Your task to perform on an android device: toggle show notifications on the lock screen Image 0: 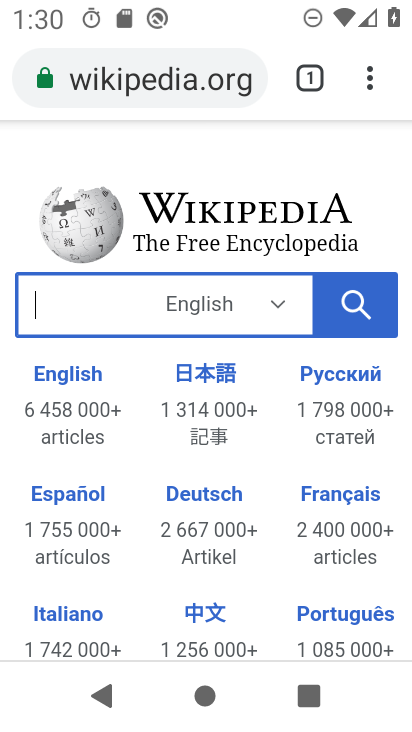
Step 0: press home button
Your task to perform on an android device: toggle show notifications on the lock screen Image 1: 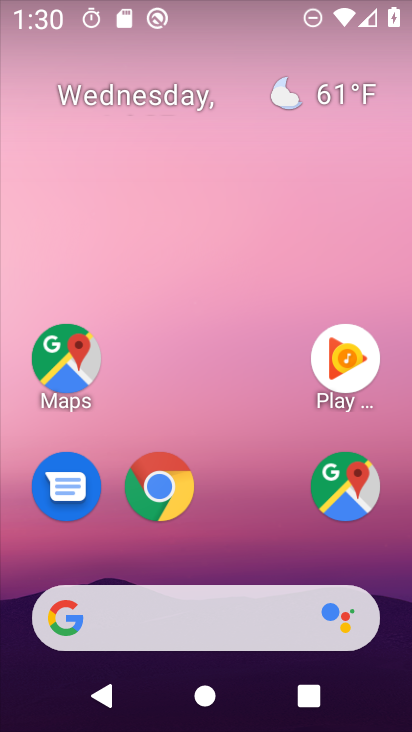
Step 1: drag from (282, 520) to (289, 126)
Your task to perform on an android device: toggle show notifications on the lock screen Image 2: 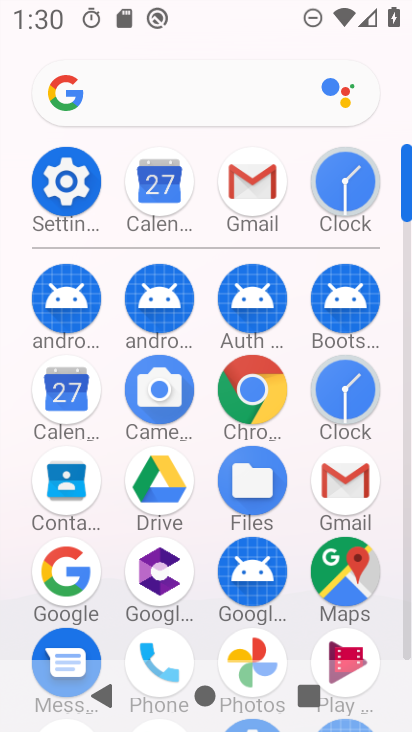
Step 2: click (71, 186)
Your task to perform on an android device: toggle show notifications on the lock screen Image 3: 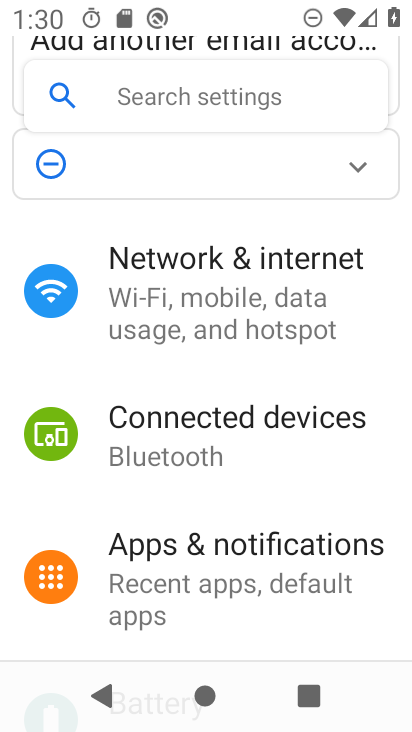
Step 3: drag from (356, 605) to (359, 506)
Your task to perform on an android device: toggle show notifications on the lock screen Image 4: 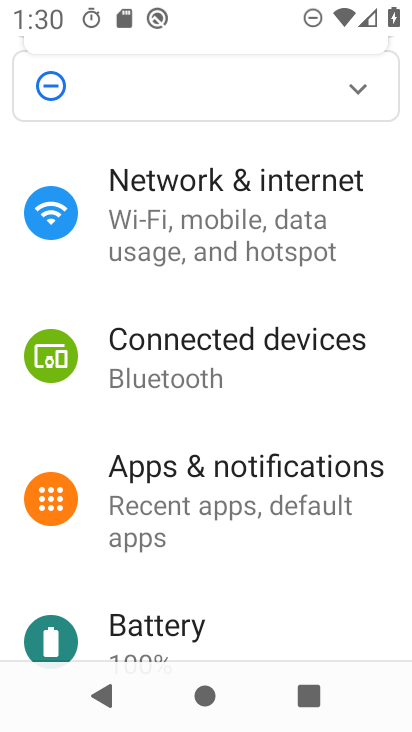
Step 4: drag from (350, 577) to (358, 493)
Your task to perform on an android device: toggle show notifications on the lock screen Image 5: 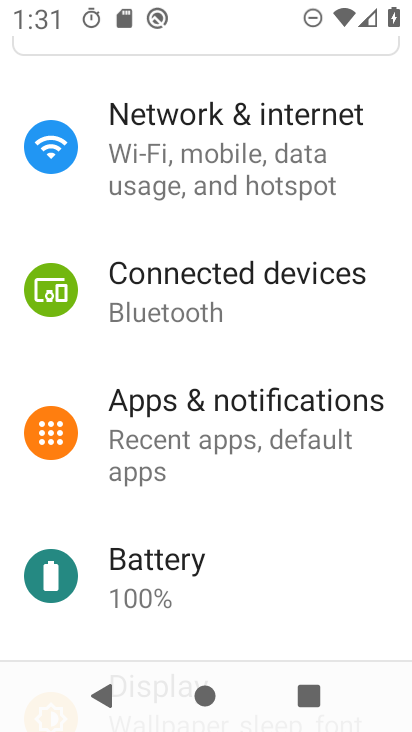
Step 5: drag from (337, 596) to (337, 514)
Your task to perform on an android device: toggle show notifications on the lock screen Image 6: 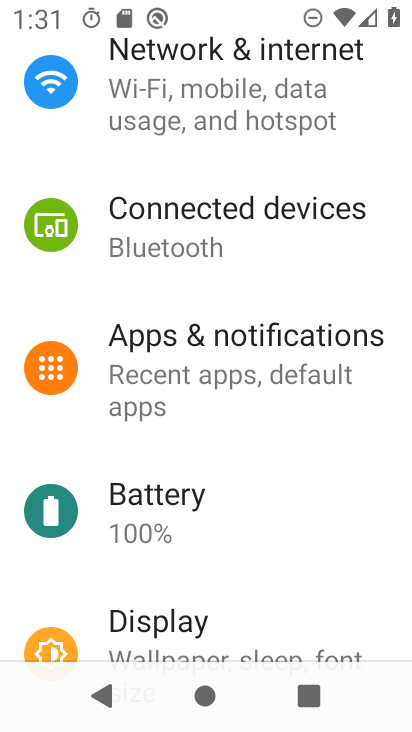
Step 6: drag from (346, 564) to (346, 485)
Your task to perform on an android device: toggle show notifications on the lock screen Image 7: 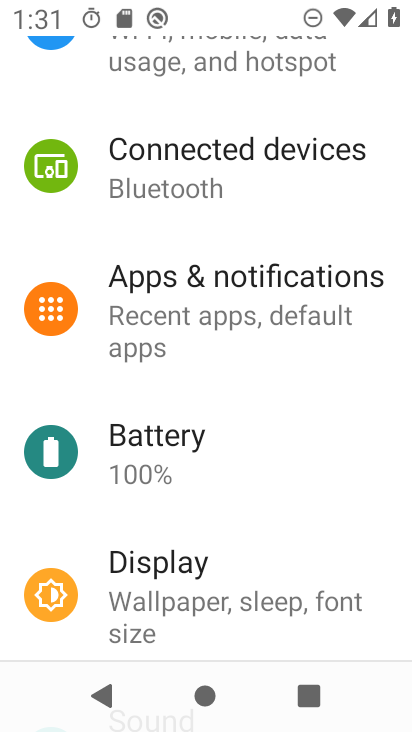
Step 7: drag from (337, 622) to (335, 560)
Your task to perform on an android device: toggle show notifications on the lock screen Image 8: 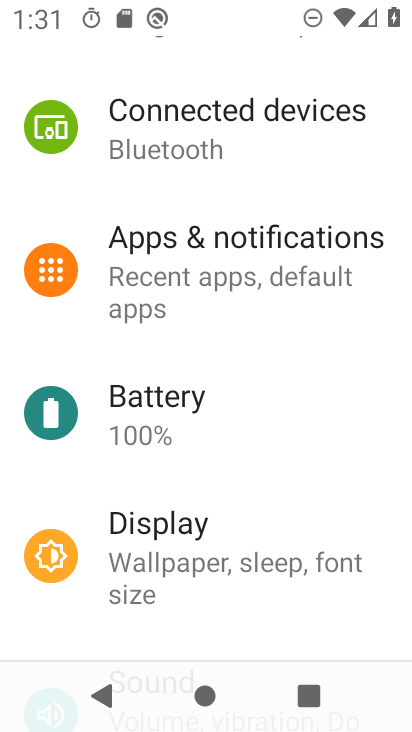
Step 8: drag from (337, 626) to (341, 561)
Your task to perform on an android device: toggle show notifications on the lock screen Image 9: 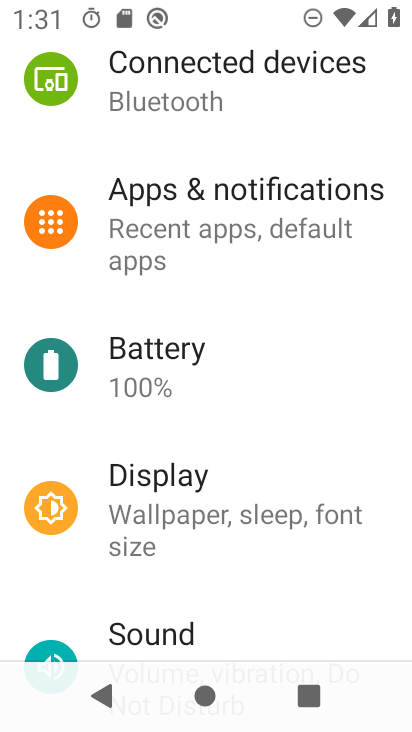
Step 9: drag from (348, 594) to (358, 512)
Your task to perform on an android device: toggle show notifications on the lock screen Image 10: 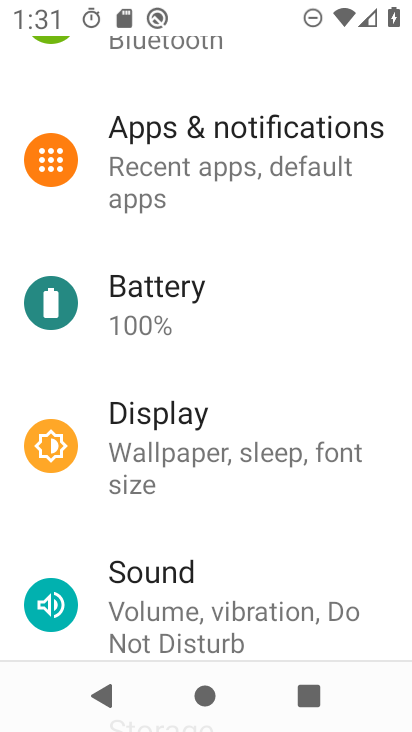
Step 10: drag from (363, 643) to (369, 564)
Your task to perform on an android device: toggle show notifications on the lock screen Image 11: 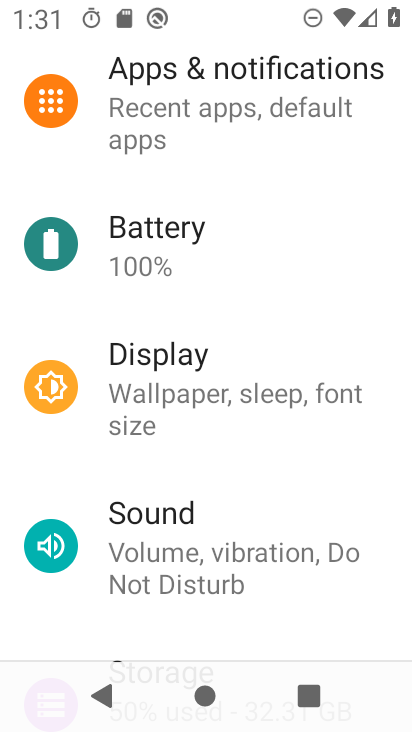
Step 11: drag from (370, 614) to (369, 558)
Your task to perform on an android device: toggle show notifications on the lock screen Image 12: 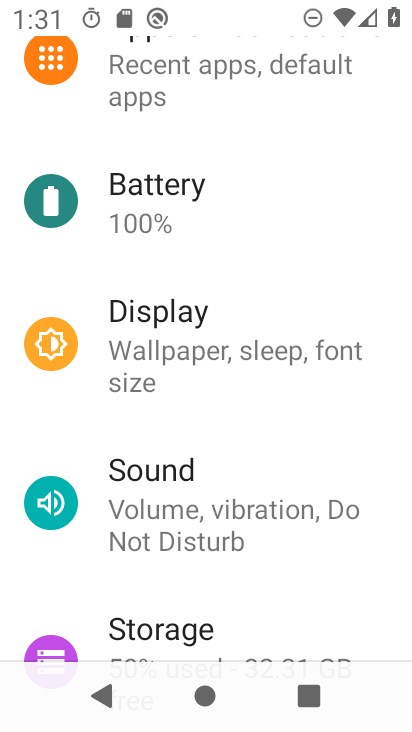
Step 12: drag from (353, 601) to (357, 531)
Your task to perform on an android device: toggle show notifications on the lock screen Image 13: 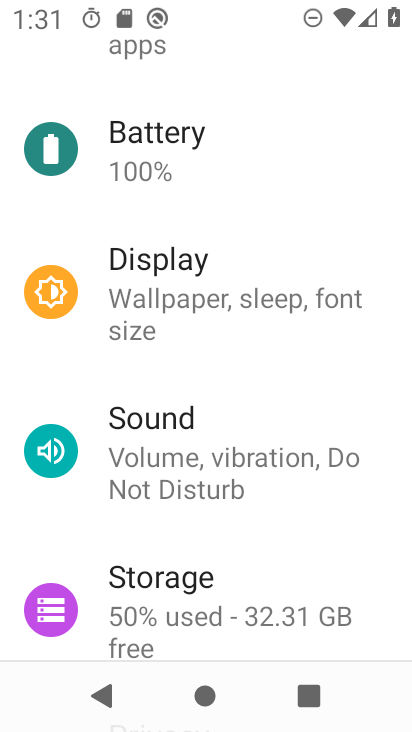
Step 13: drag from (359, 382) to (363, 489)
Your task to perform on an android device: toggle show notifications on the lock screen Image 14: 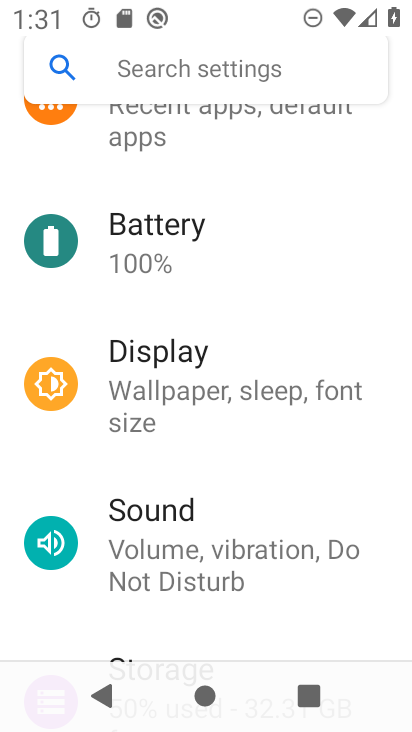
Step 14: drag from (369, 325) to (372, 421)
Your task to perform on an android device: toggle show notifications on the lock screen Image 15: 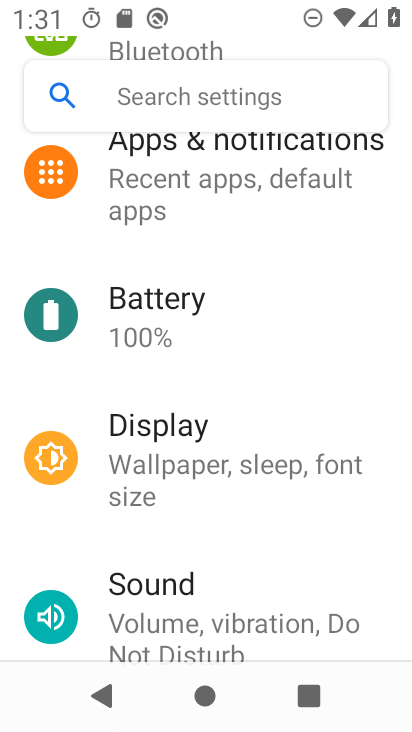
Step 15: drag from (370, 320) to (357, 415)
Your task to perform on an android device: toggle show notifications on the lock screen Image 16: 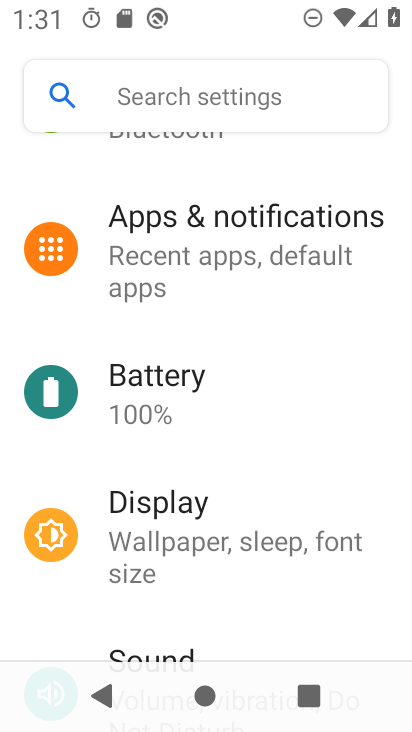
Step 16: drag from (357, 317) to (347, 448)
Your task to perform on an android device: toggle show notifications on the lock screen Image 17: 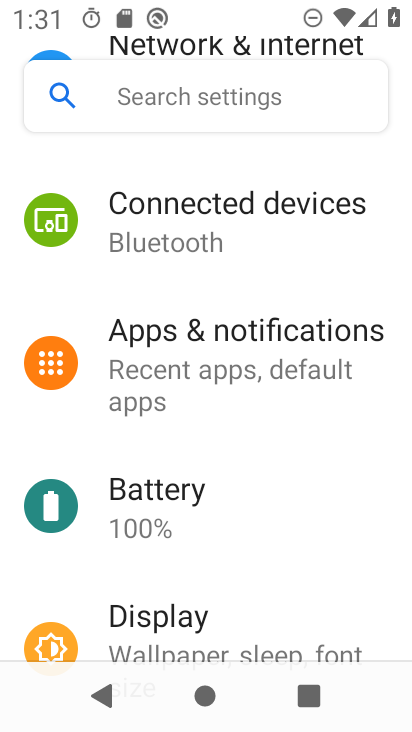
Step 17: drag from (368, 250) to (365, 440)
Your task to perform on an android device: toggle show notifications on the lock screen Image 18: 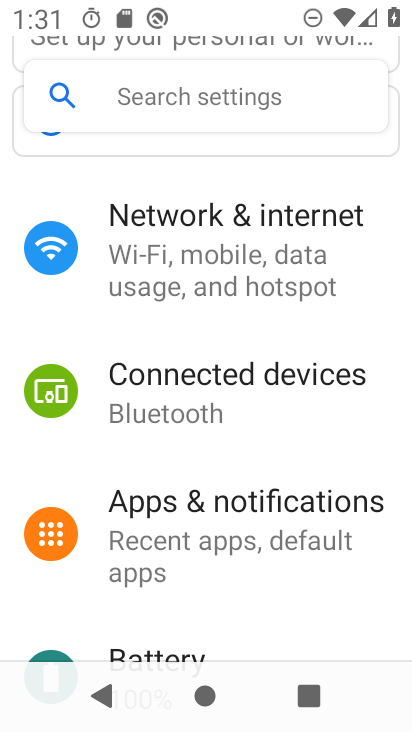
Step 18: click (299, 525)
Your task to perform on an android device: toggle show notifications on the lock screen Image 19: 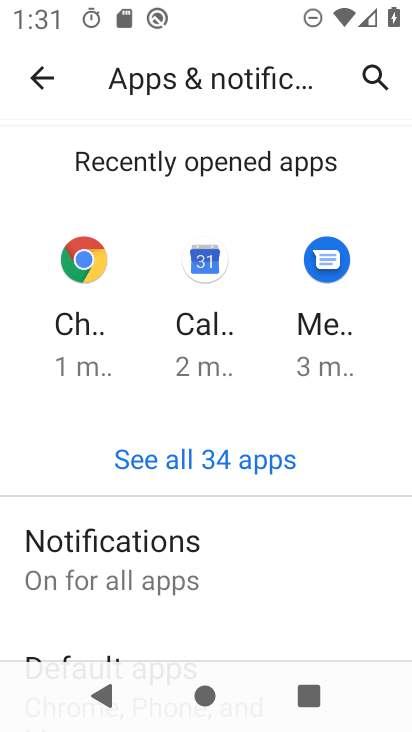
Step 19: click (217, 569)
Your task to perform on an android device: toggle show notifications on the lock screen Image 20: 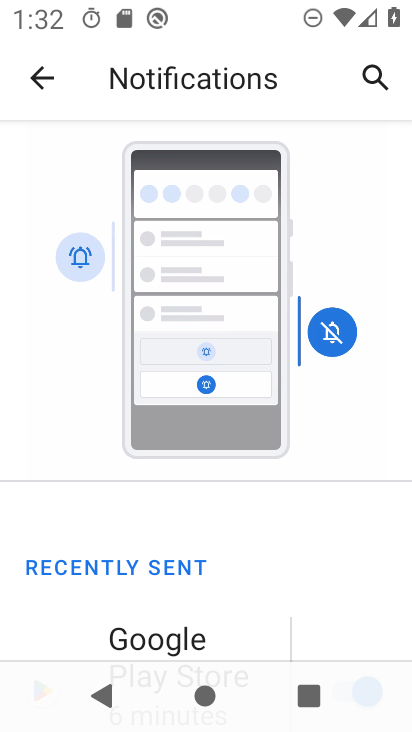
Step 20: drag from (348, 584) to (349, 537)
Your task to perform on an android device: toggle show notifications on the lock screen Image 21: 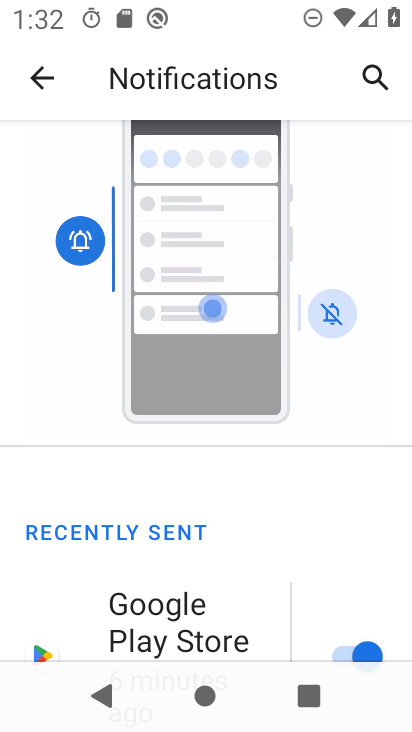
Step 21: drag from (247, 634) to (254, 554)
Your task to perform on an android device: toggle show notifications on the lock screen Image 22: 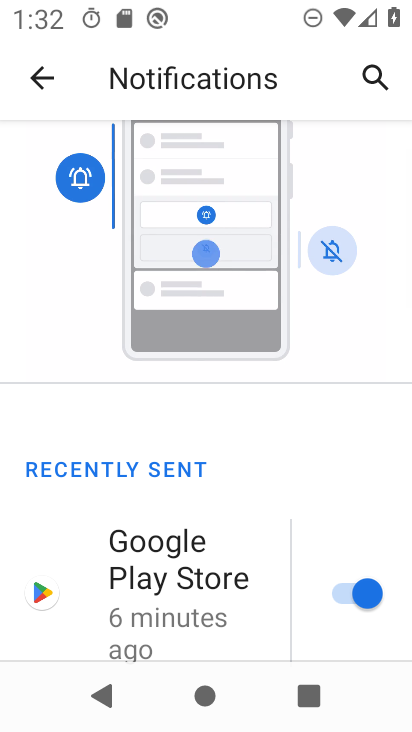
Step 22: drag from (243, 625) to (242, 555)
Your task to perform on an android device: toggle show notifications on the lock screen Image 23: 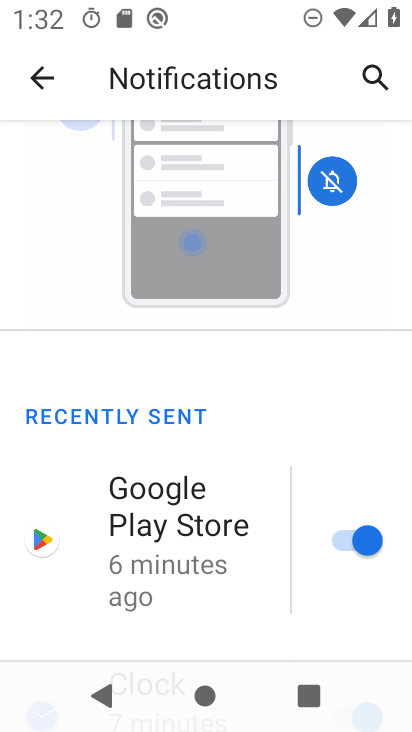
Step 23: drag from (230, 627) to (230, 562)
Your task to perform on an android device: toggle show notifications on the lock screen Image 24: 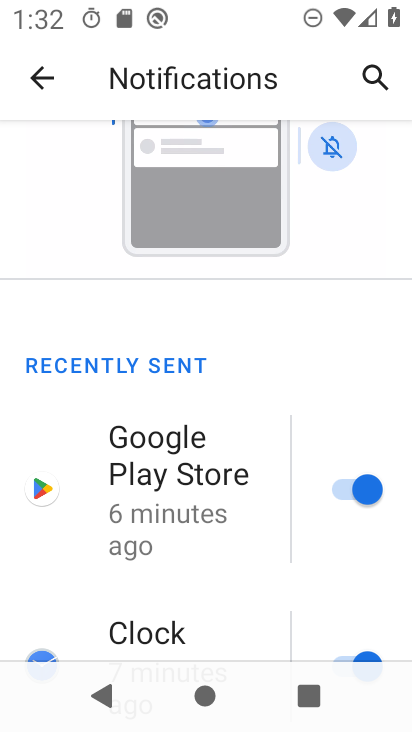
Step 24: drag from (230, 600) to (233, 540)
Your task to perform on an android device: toggle show notifications on the lock screen Image 25: 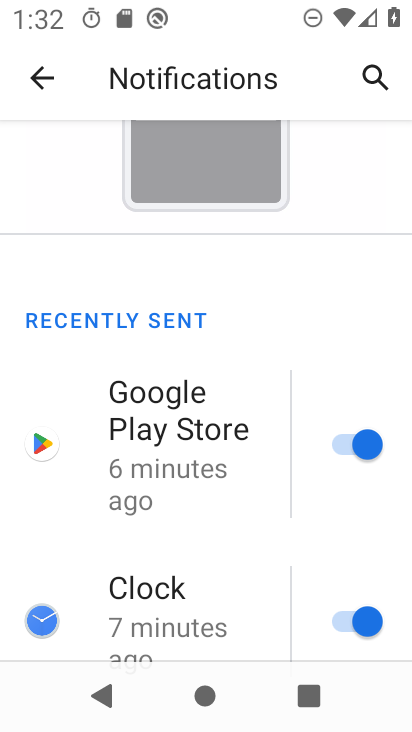
Step 25: drag from (237, 613) to (240, 530)
Your task to perform on an android device: toggle show notifications on the lock screen Image 26: 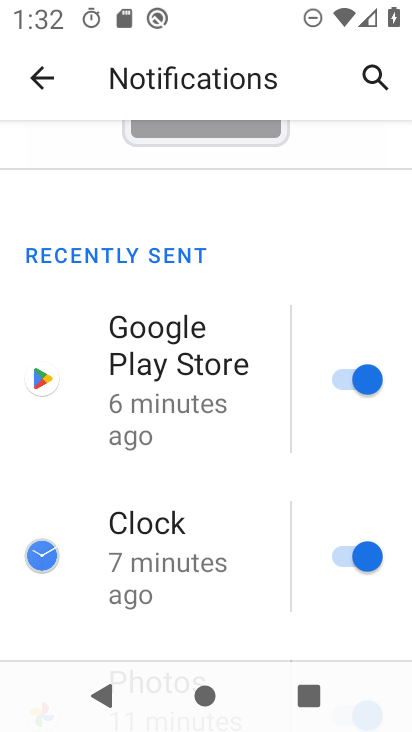
Step 26: drag from (233, 604) to (237, 518)
Your task to perform on an android device: toggle show notifications on the lock screen Image 27: 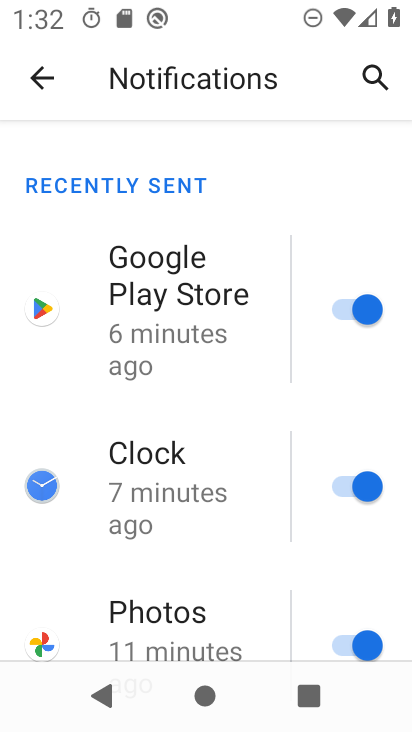
Step 27: drag from (239, 618) to (244, 445)
Your task to perform on an android device: toggle show notifications on the lock screen Image 28: 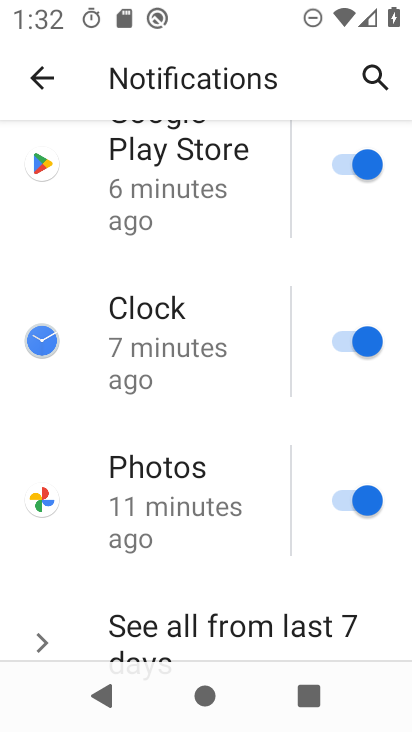
Step 28: drag from (242, 579) to (253, 268)
Your task to perform on an android device: toggle show notifications on the lock screen Image 29: 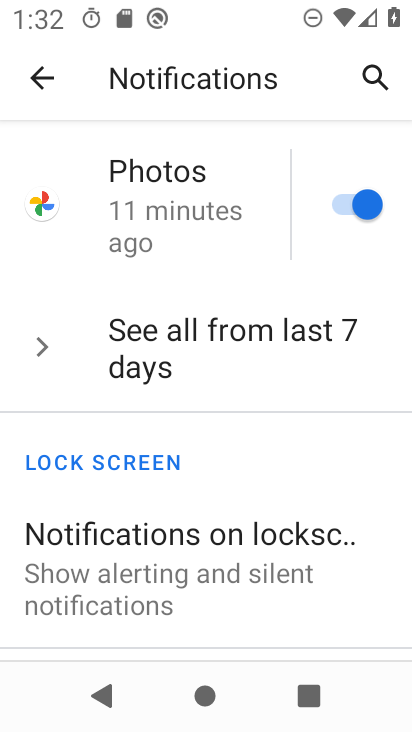
Step 29: click (249, 575)
Your task to perform on an android device: toggle show notifications on the lock screen Image 30: 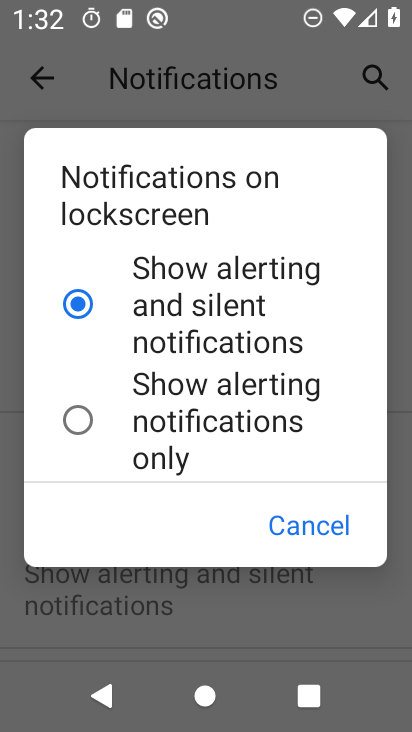
Step 30: click (189, 421)
Your task to perform on an android device: toggle show notifications on the lock screen Image 31: 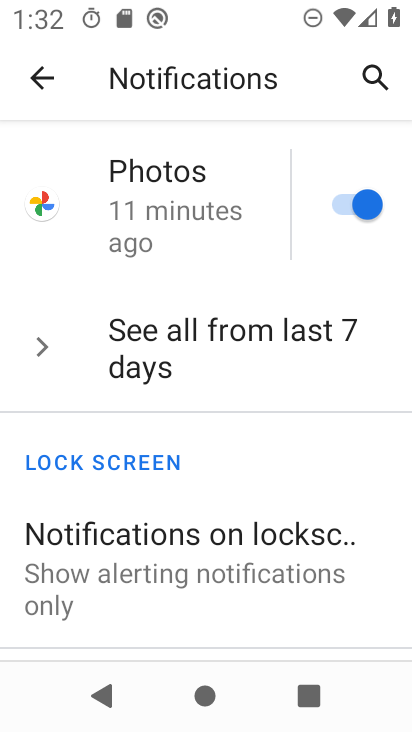
Step 31: task complete